Your task to perform on an android device: turn smart compose on in the gmail app Image 0: 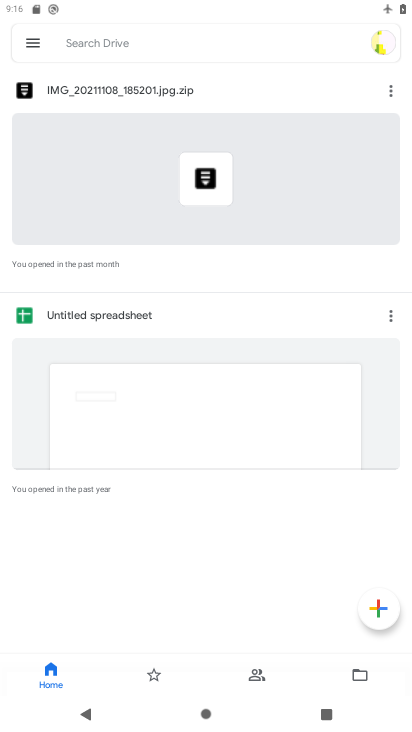
Step 0: press home button
Your task to perform on an android device: turn smart compose on in the gmail app Image 1: 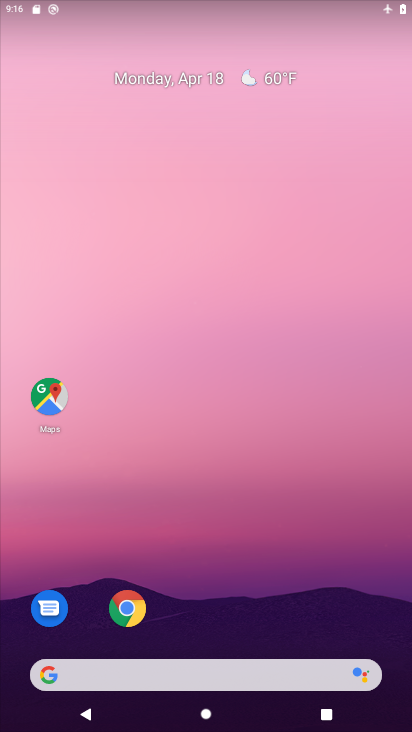
Step 1: drag from (306, 581) to (376, 118)
Your task to perform on an android device: turn smart compose on in the gmail app Image 2: 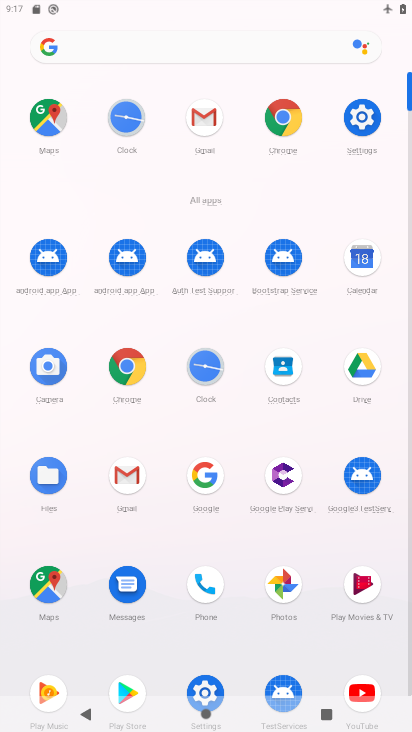
Step 2: click (124, 479)
Your task to perform on an android device: turn smart compose on in the gmail app Image 3: 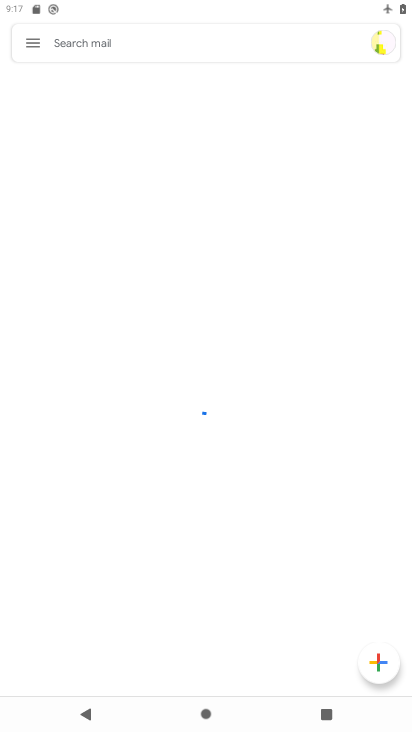
Step 3: click (33, 43)
Your task to perform on an android device: turn smart compose on in the gmail app Image 4: 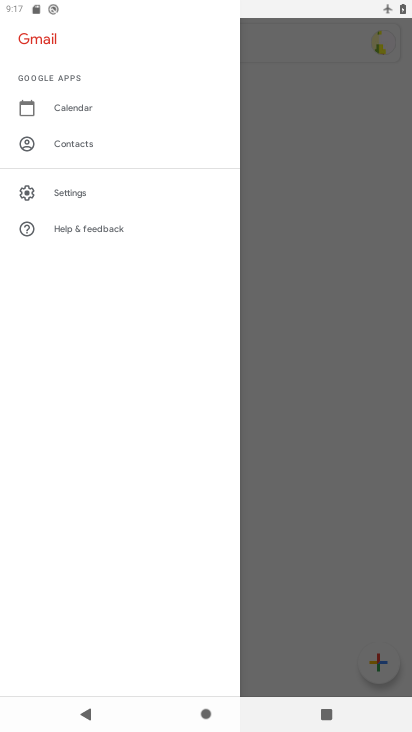
Step 4: click (78, 194)
Your task to perform on an android device: turn smart compose on in the gmail app Image 5: 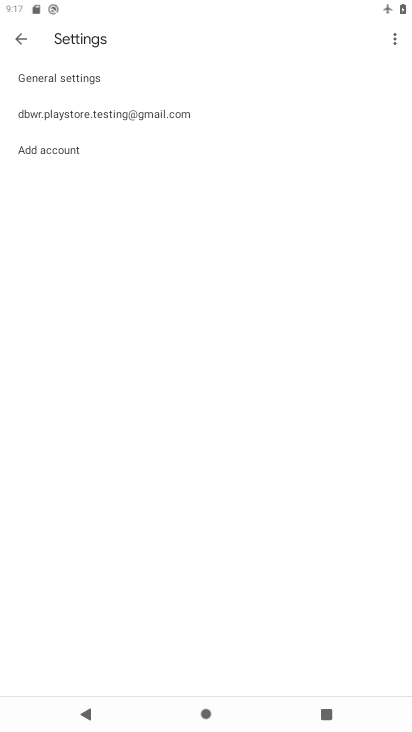
Step 5: click (124, 113)
Your task to perform on an android device: turn smart compose on in the gmail app Image 6: 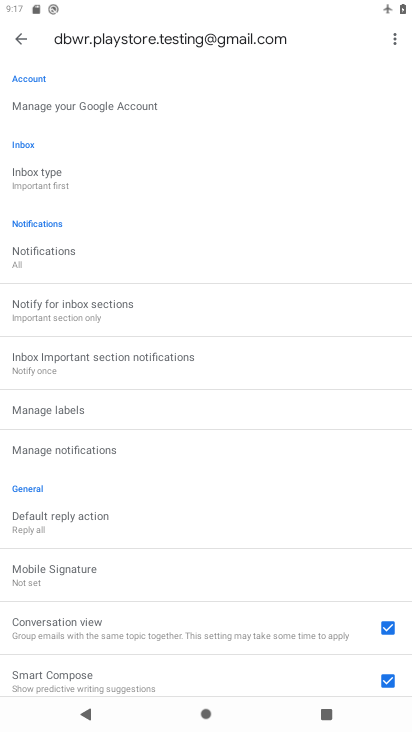
Step 6: task complete